Your task to perform on an android device: Show me recent news Image 0: 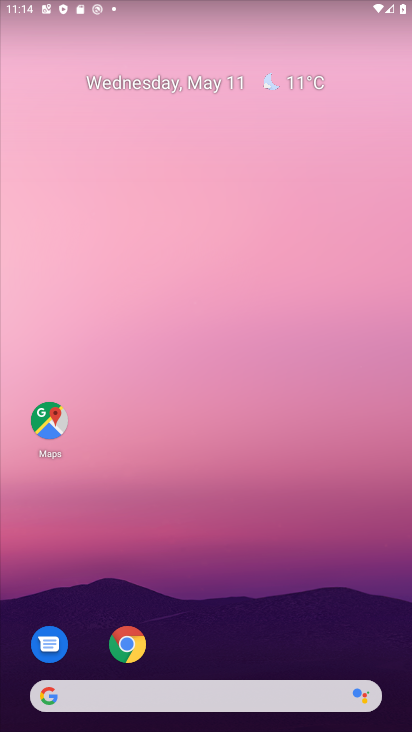
Step 0: drag from (228, 660) to (242, 102)
Your task to perform on an android device: Show me recent news Image 1: 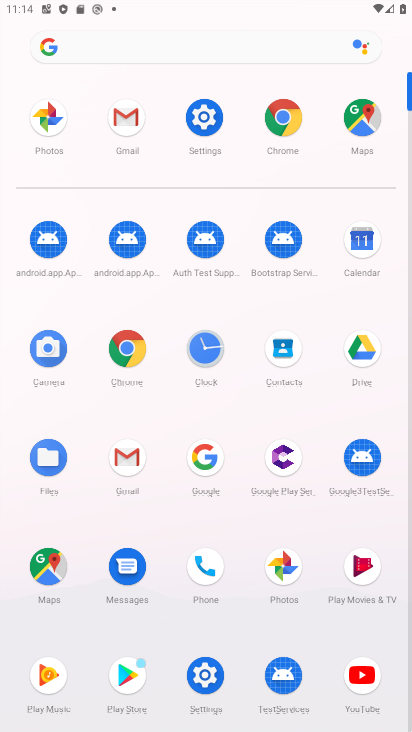
Step 1: task complete